Your task to perform on an android device: open the mobile data screen to see how much data has been used Image 0: 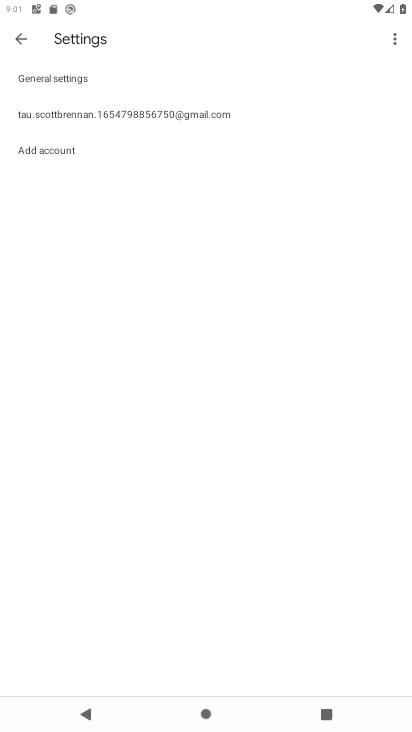
Step 0: press home button
Your task to perform on an android device: open the mobile data screen to see how much data has been used Image 1: 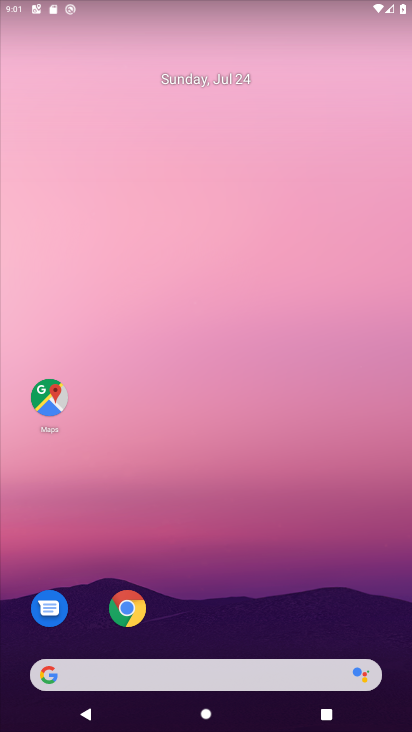
Step 1: drag from (226, 612) to (259, 0)
Your task to perform on an android device: open the mobile data screen to see how much data has been used Image 2: 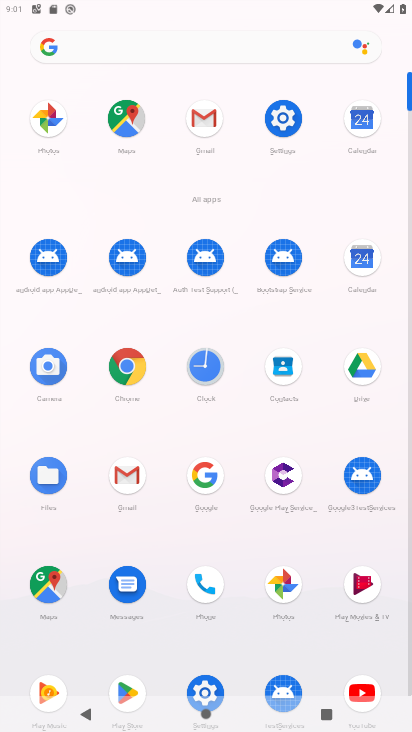
Step 2: click (286, 118)
Your task to perform on an android device: open the mobile data screen to see how much data has been used Image 3: 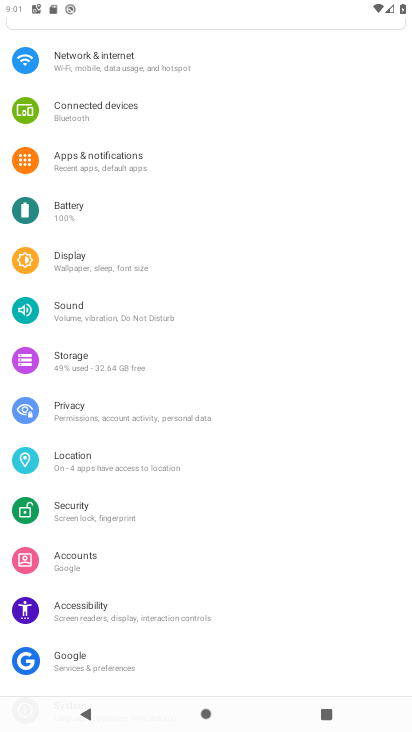
Step 3: click (130, 74)
Your task to perform on an android device: open the mobile data screen to see how much data has been used Image 4: 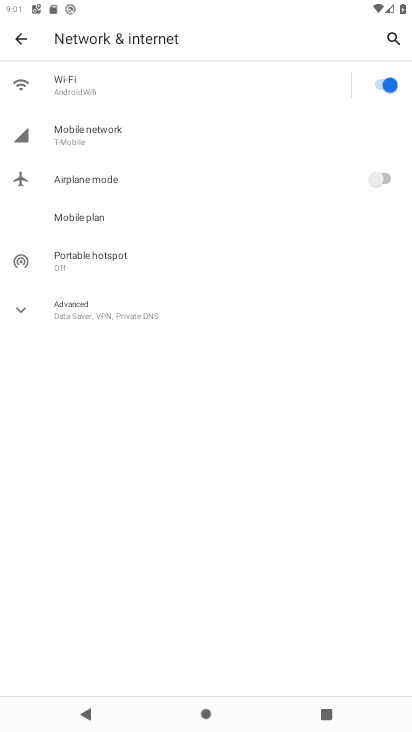
Step 4: click (106, 139)
Your task to perform on an android device: open the mobile data screen to see how much data has been used Image 5: 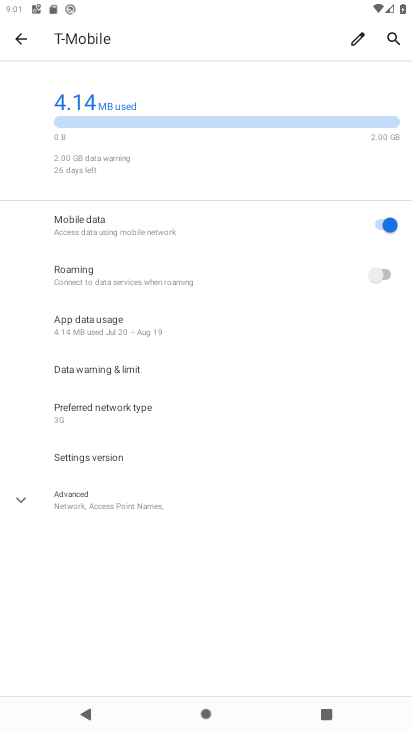
Step 5: click (63, 328)
Your task to perform on an android device: open the mobile data screen to see how much data has been used Image 6: 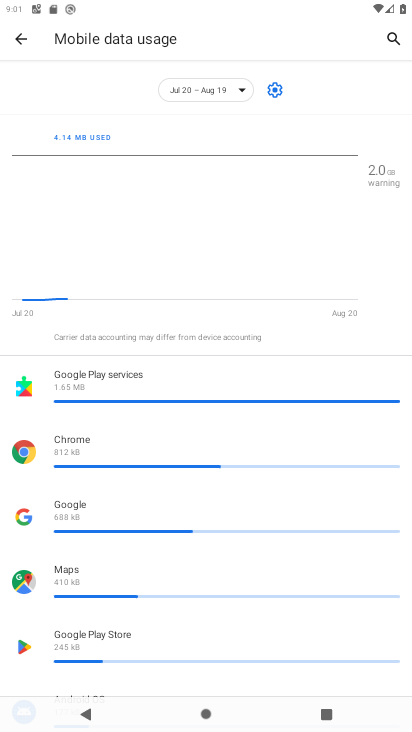
Step 6: task complete